Your task to perform on an android device: Open settings Image 0: 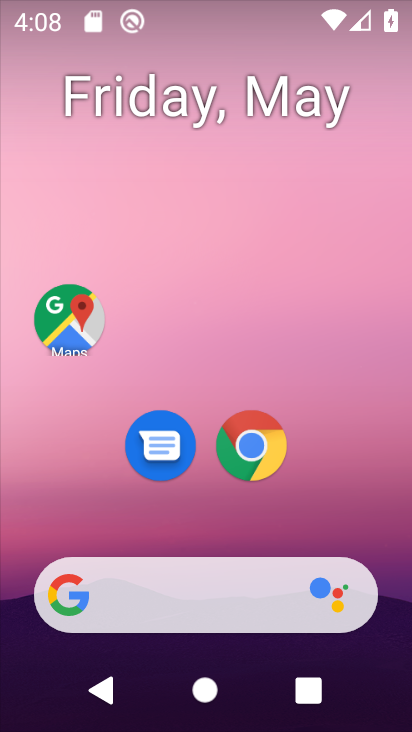
Step 0: drag from (209, 535) to (241, 110)
Your task to perform on an android device: Open settings Image 1: 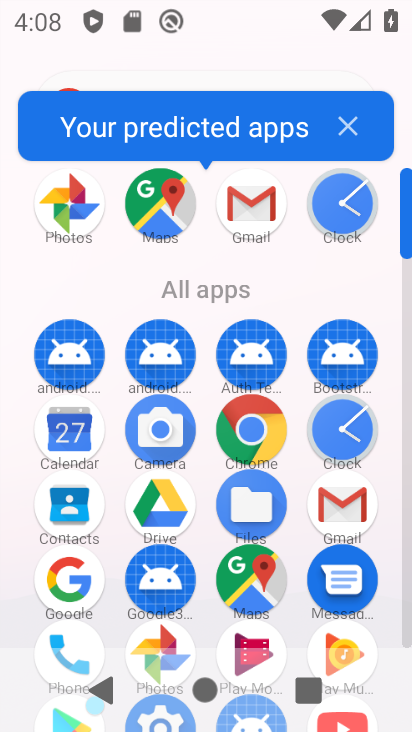
Step 1: drag from (293, 612) to (322, 318)
Your task to perform on an android device: Open settings Image 2: 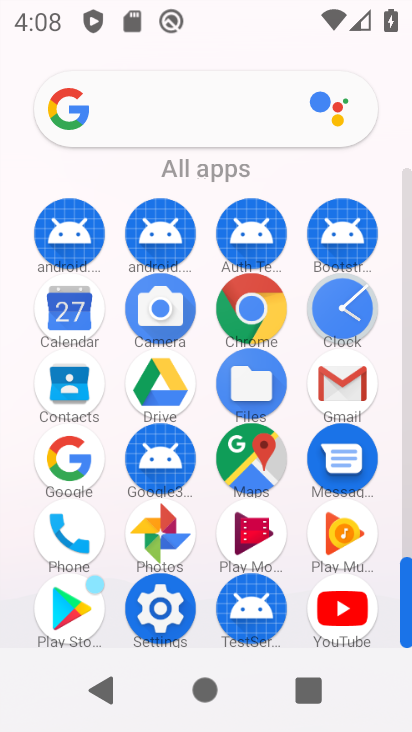
Step 2: click (157, 609)
Your task to perform on an android device: Open settings Image 3: 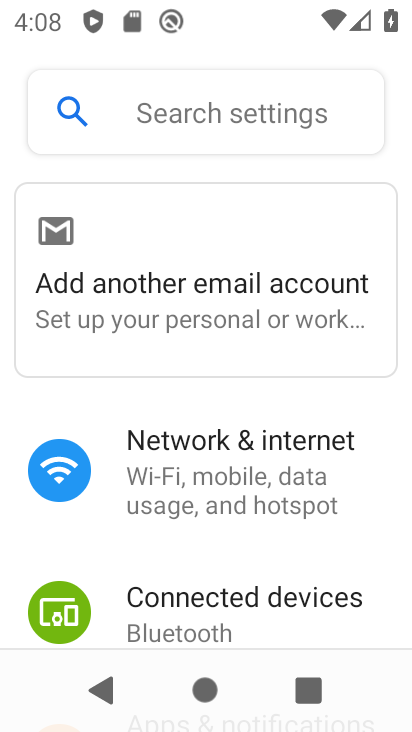
Step 3: task complete